Your task to perform on an android device: Do I have any events today? Image 0: 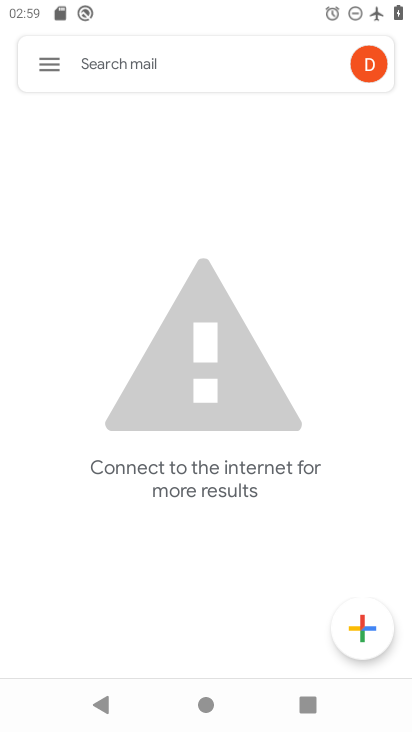
Step 0: press home button
Your task to perform on an android device: Do I have any events today? Image 1: 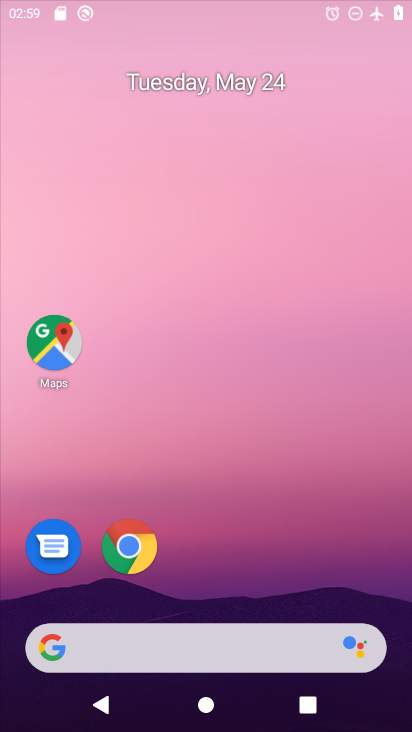
Step 1: drag from (248, 604) to (326, 0)
Your task to perform on an android device: Do I have any events today? Image 2: 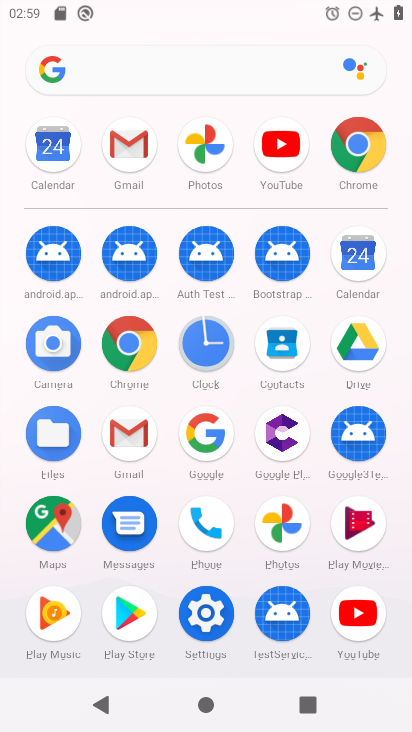
Step 2: click (361, 255)
Your task to perform on an android device: Do I have any events today? Image 3: 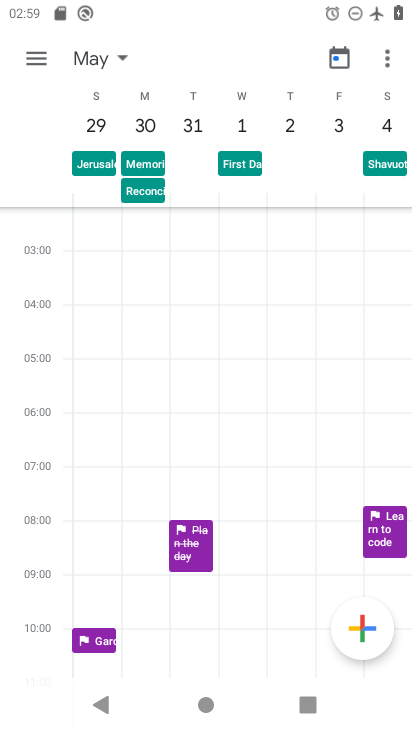
Step 3: click (118, 60)
Your task to perform on an android device: Do I have any events today? Image 4: 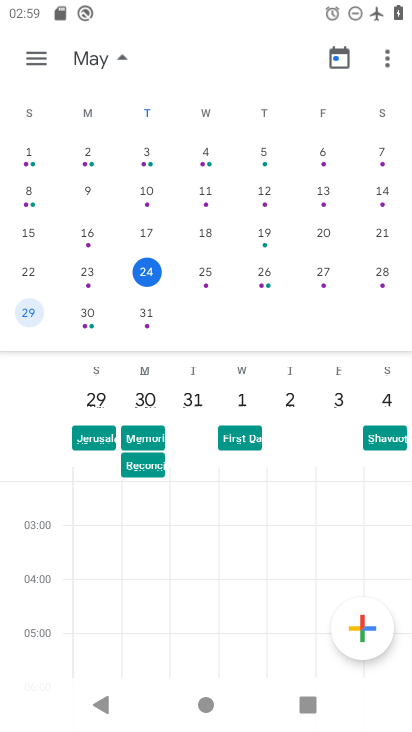
Step 4: click (143, 266)
Your task to perform on an android device: Do I have any events today? Image 5: 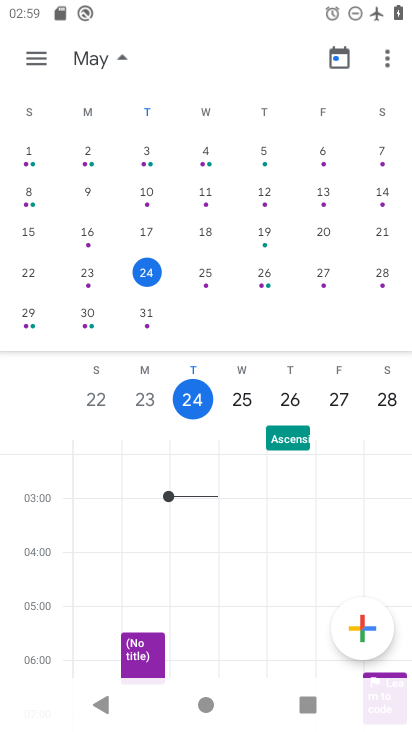
Step 5: task complete